Your task to perform on an android device: Open Google Chrome Image 0: 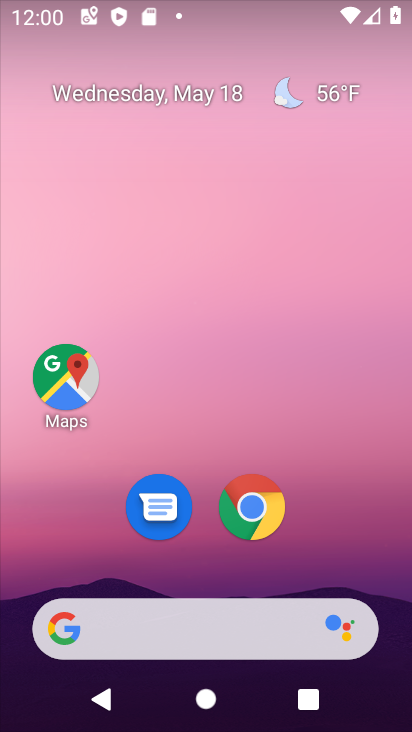
Step 0: click (272, 531)
Your task to perform on an android device: Open Google Chrome Image 1: 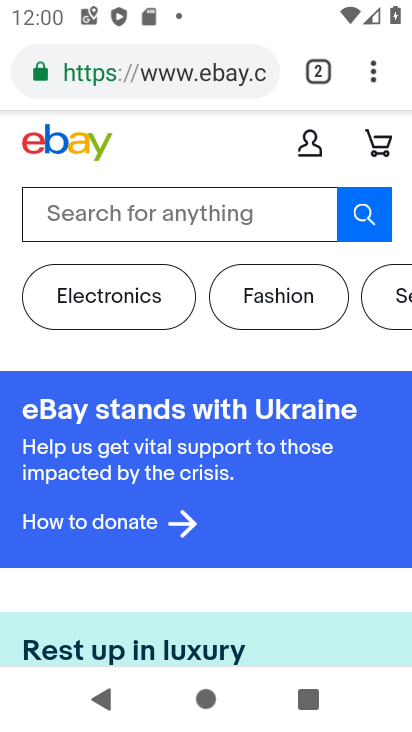
Step 1: task complete